Your task to perform on an android device: manage bookmarks in the chrome app Image 0: 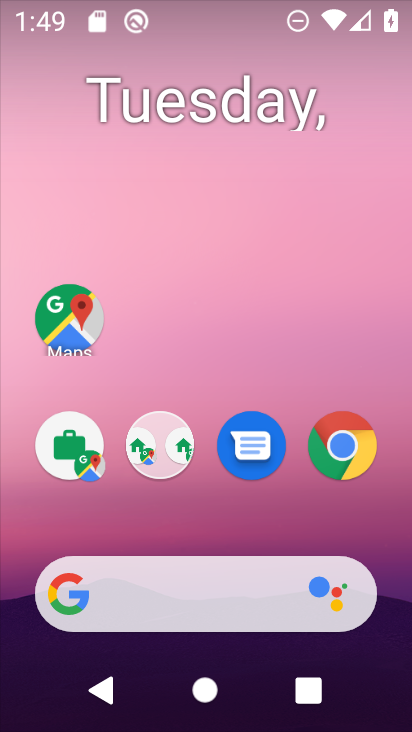
Step 0: drag from (324, 556) to (284, 161)
Your task to perform on an android device: manage bookmarks in the chrome app Image 1: 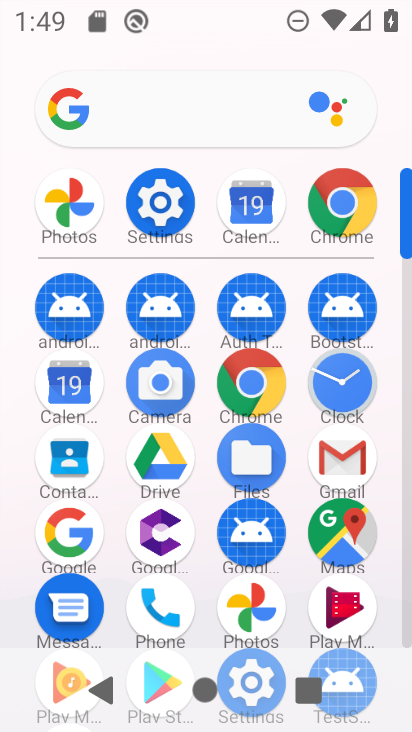
Step 1: click (255, 401)
Your task to perform on an android device: manage bookmarks in the chrome app Image 2: 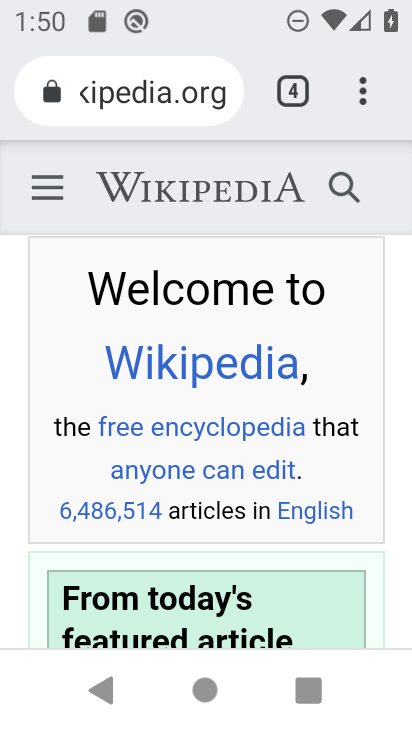
Step 2: click (350, 99)
Your task to perform on an android device: manage bookmarks in the chrome app Image 3: 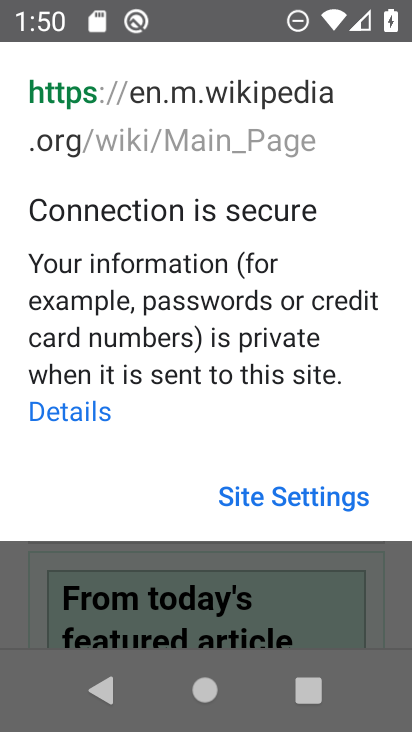
Step 3: click (334, 489)
Your task to perform on an android device: manage bookmarks in the chrome app Image 4: 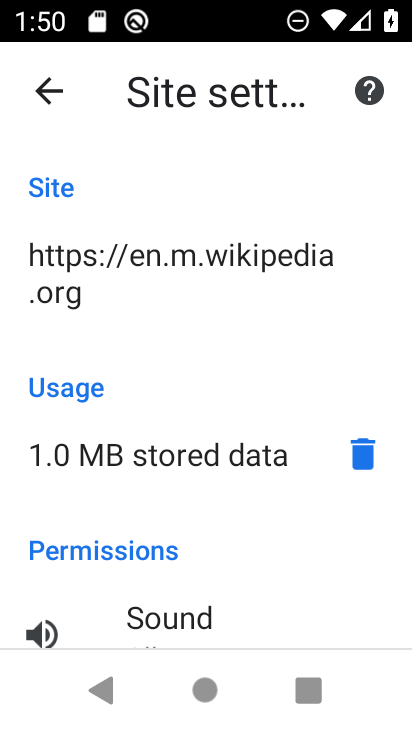
Step 4: drag from (244, 532) to (248, 196)
Your task to perform on an android device: manage bookmarks in the chrome app Image 5: 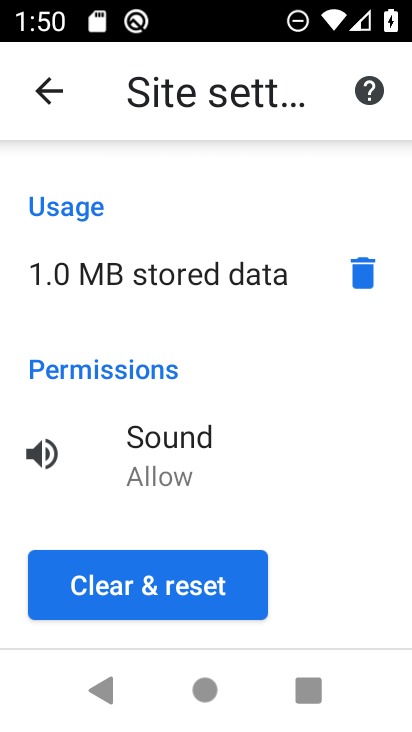
Step 5: click (186, 609)
Your task to perform on an android device: manage bookmarks in the chrome app Image 6: 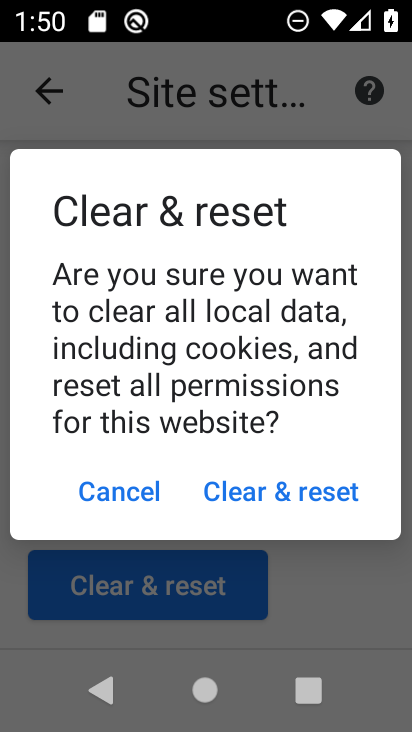
Step 6: click (269, 488)
Your task to perform on an android device: manage bookmarks in the chrome app Image 7: 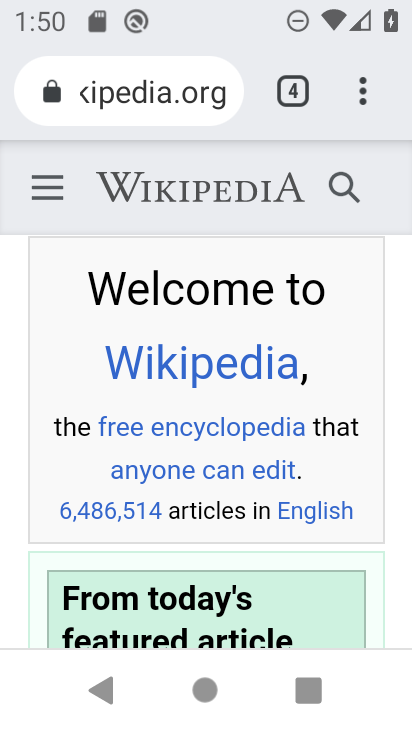
Step 7: task complete